Your task to perform on an android device: find snoozed emails in the gmail app Image 0: 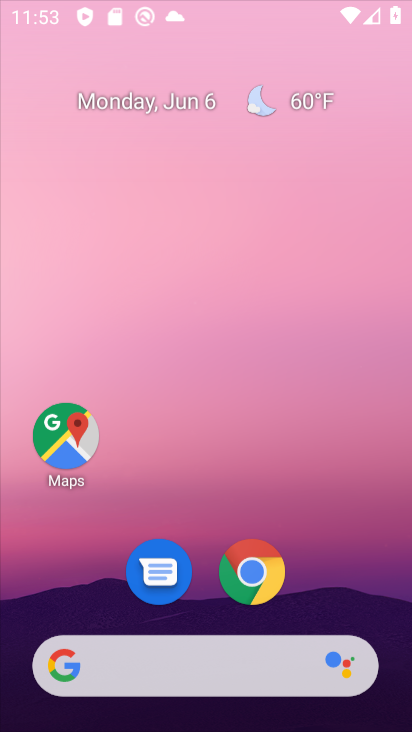
Step 0: press home button
Your task to perform on an android device: find snoozed emails in the gmail app Image 1: 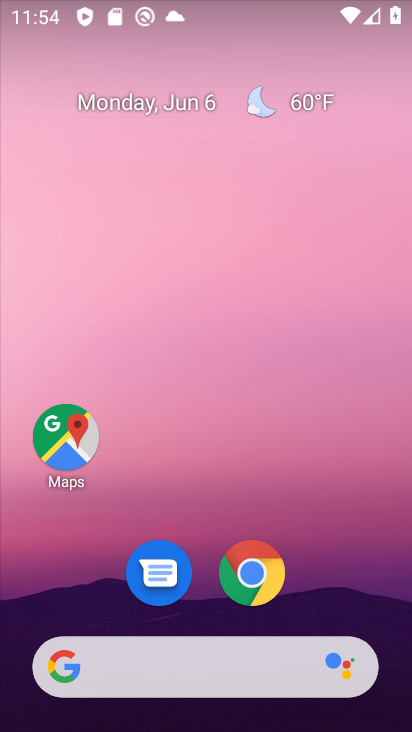
Step 1: drag from (318, 608) to (294, 410)
Your task to perform on an android device: find snoozed emails in the gmail app Image 2: 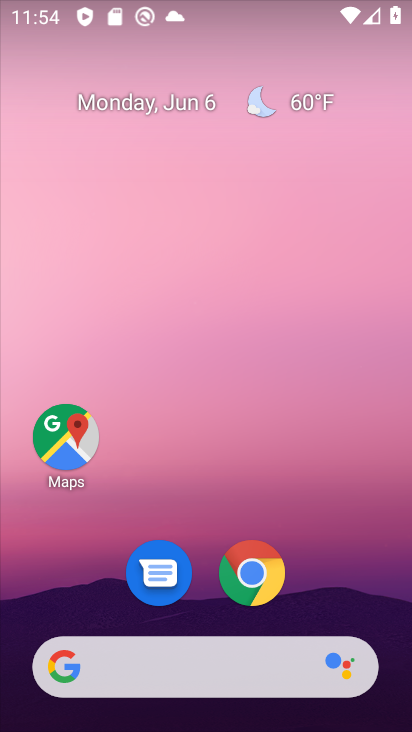
Step 2: drag from (384, 603) to (299, 4)
Your task to perform on an android device: find snoozed emails in the gmail app Image 3: 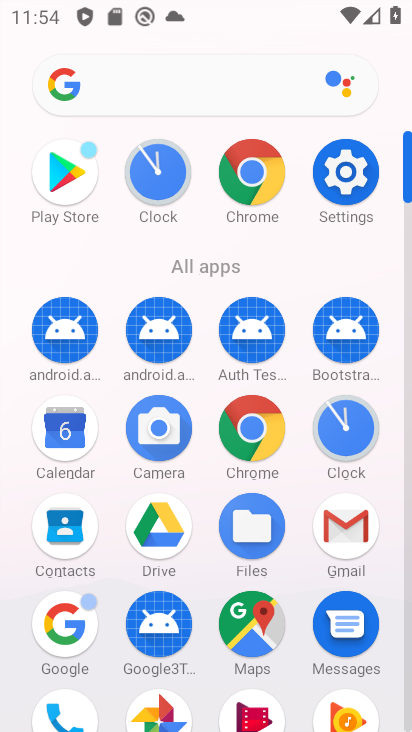
Step 3: click (236, 631)
Your task to perform on an android device: find snoozed emails in the gmail app Image 4: 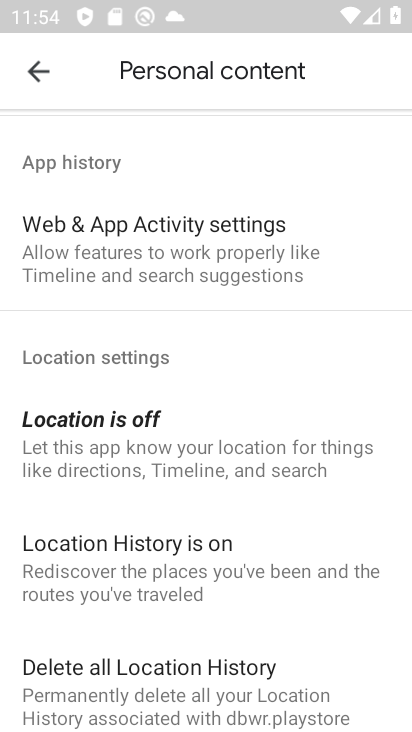
Step 4: press home button
Your task to perform on an android device: find snoozed emails in the gmail app Image 5: 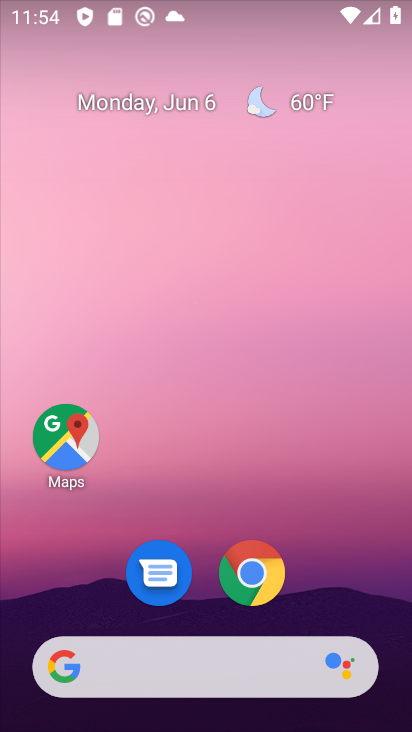
Step 5: drag from (276, 578) to (220, 64)
Your task to perform on an android device: find snoozed emails in the gmail app Image 6: 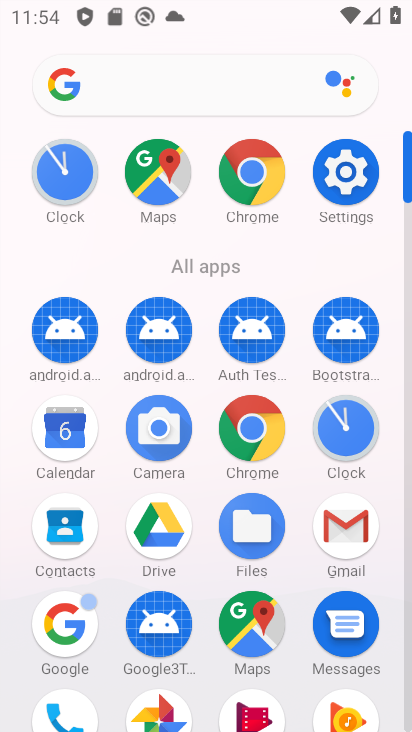
Step 6: click (335, 529)
Your task to perform on an android device: find snoozed emails in the gmail app Image 7: 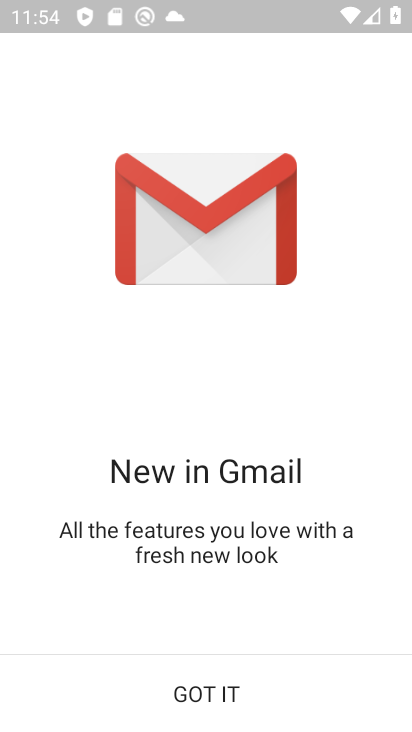
Step 7: click (231, 697)
Your task to perform on an android device: find snoozed emails in the gmail app Image 8: 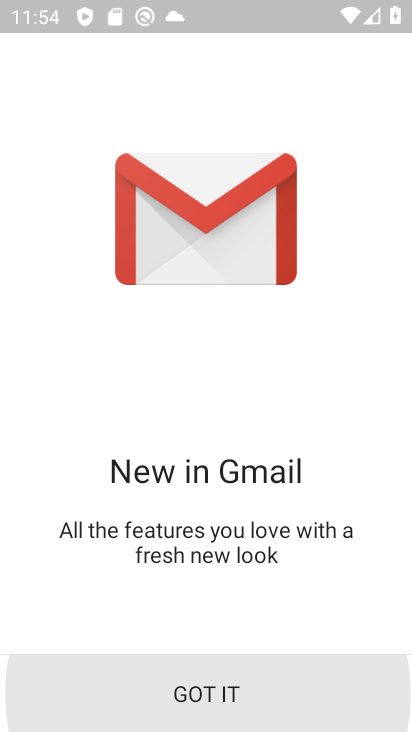
Step 8: click (231, 697)
Your task to perform on an android device: find snoozed emails in the gmail app Image 9: 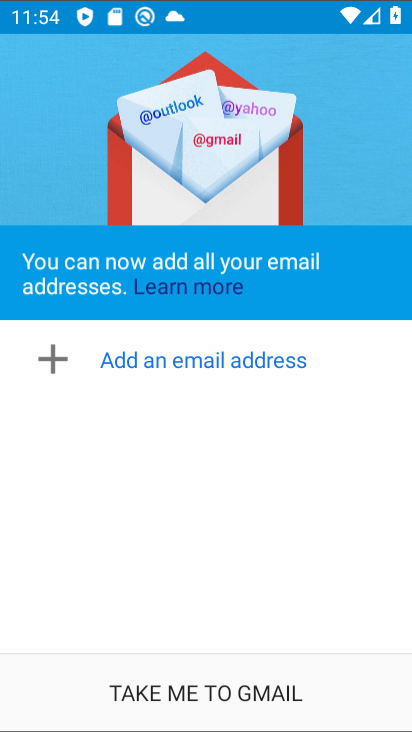
Step 9: click (231, 697)
Your task to perform on an android device: find snoozed emails in the gmail app Image 10: 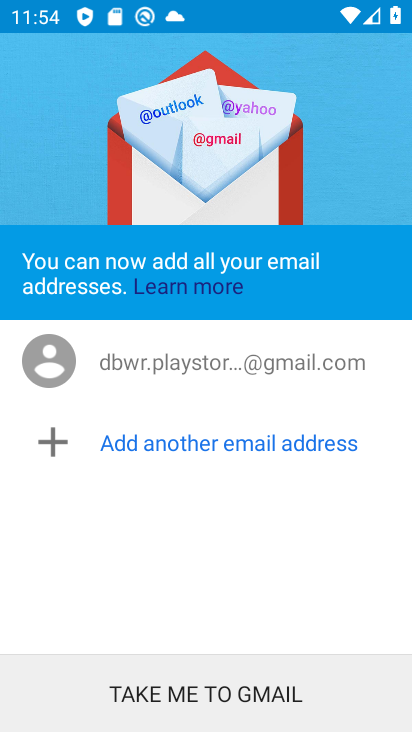
Step 10: click (231, 697)
Your task to perform on an android device: find snoozed emails in the gmail app Image 11: 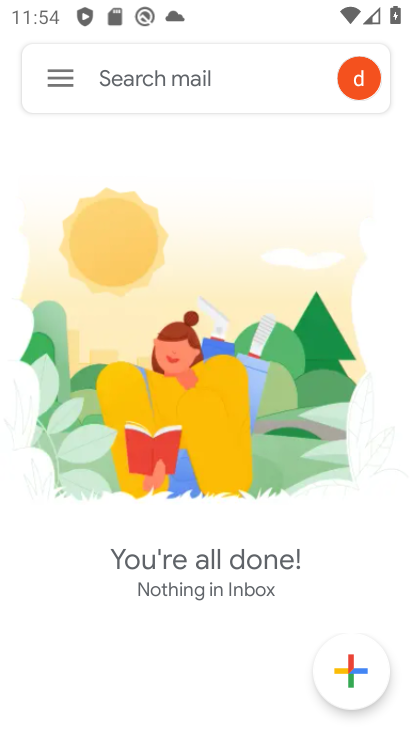
Step 11: click (63, 67)
Your task to perform on an android device: find snoozed emails in the gmail app Image 12: 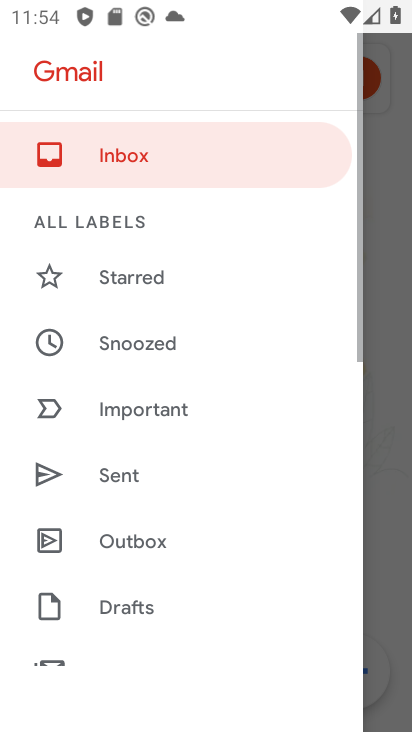
Step 12: click (133, 328)
Your task to perform on an android device: find snoozed emails in the gmail app Image 13: 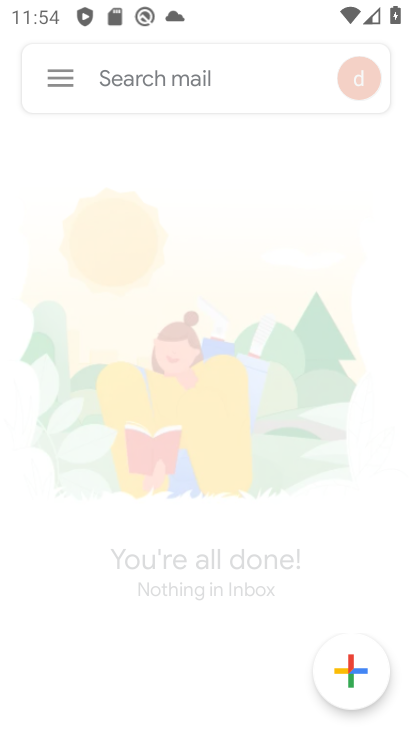
Step 13: task complete